Your task to perform on an android device: Is it going to rain today? Image 0: 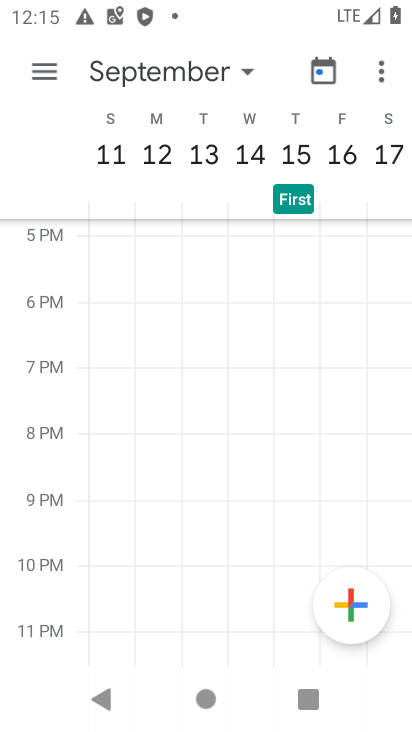
Step 0: press home button
Your task to perform on an android device: Is it going to rain today? Image 1: 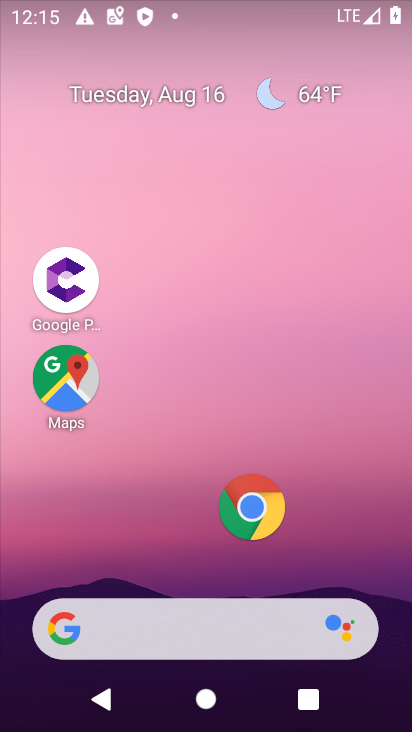
Step 1: click (189, 619)
Your task to perform on an android device: Is it going to rain today? Image 2: 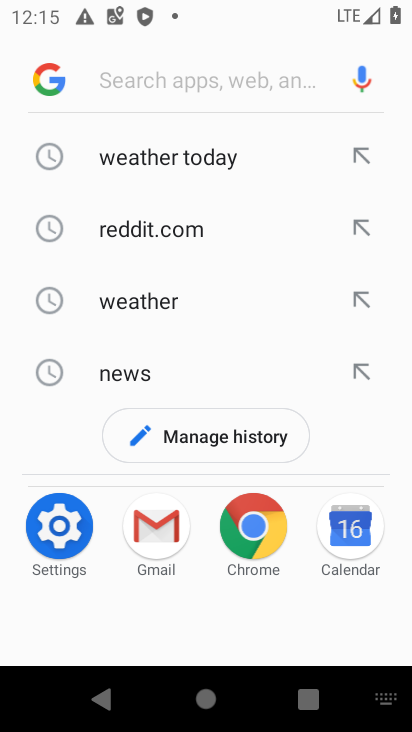
Step 2: click (148, 150)
Your task to perform on an android device: Is it going to rain today? Image 3: 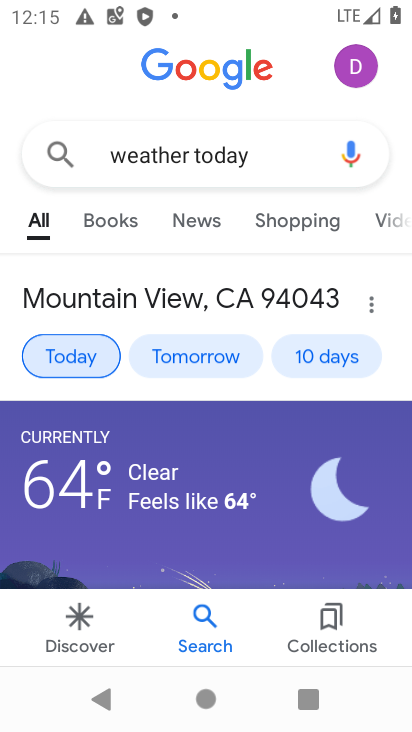
Step 3: task complete